Your task to perform on an android device: open the mobile data screen to see how much data has been used Image 0: 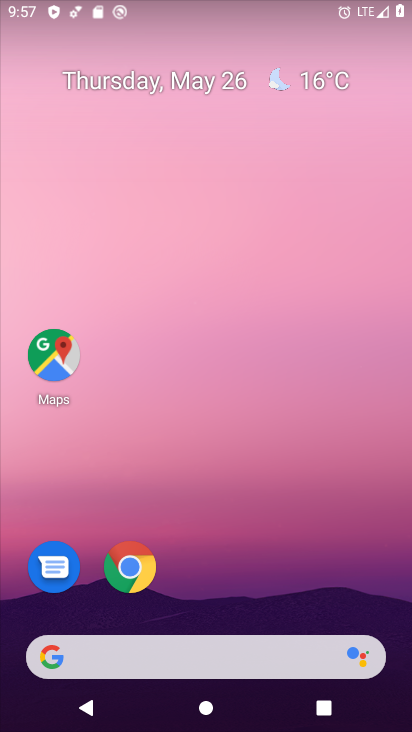
Step 0: drag from (387, 701) to (343, 221)
Your task to perform on an android device: open the mobile data screen to see how much data has been used Image 1: 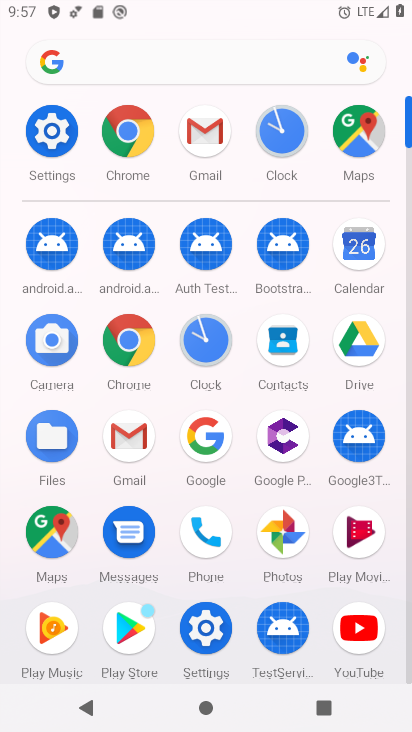
Step 1: click (45, 134)
Your task to perform on an android device: open the mobile data screen to see how much data has been used Image 2: 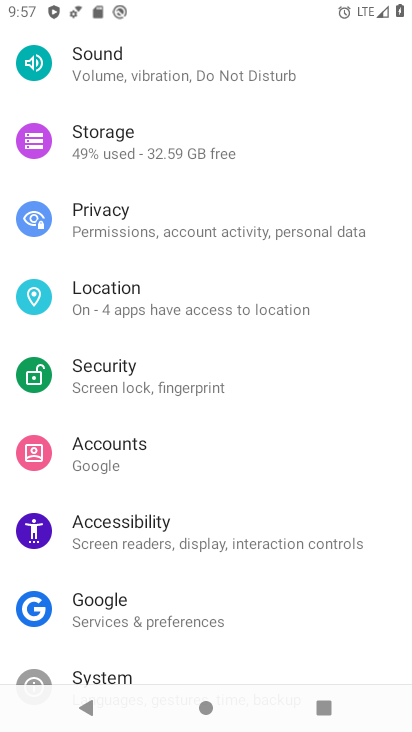
Step 2: drag from (346, 101) to (340, 612)
Your task to perform on an android device: open the mobile data screen to see how much data has been used Image 3: 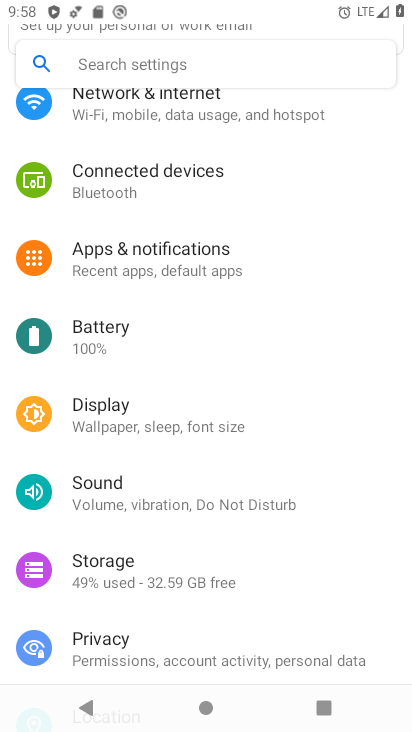
Step 3: click (149, 112)
Your task to perform on an android device: open the mobile data screen to see how much data has been used Image 4: 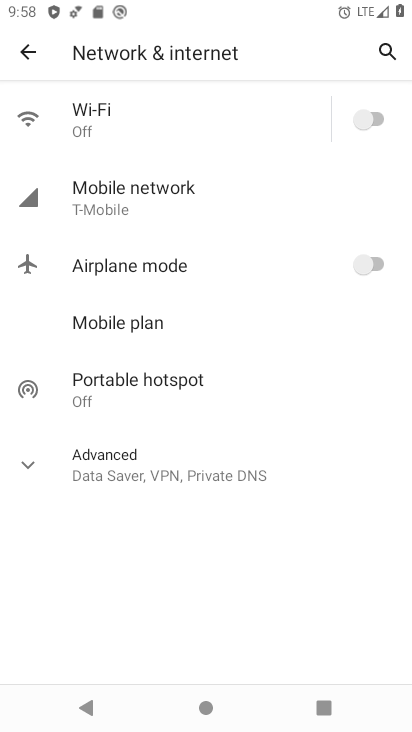
Step 4: click (122, 185)
Your task to perform on an android device: open the mobile data screen to see how much data has been used Image 5: 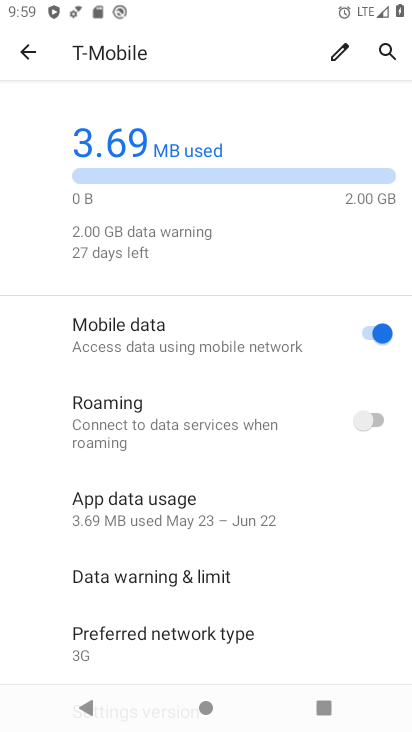
Step 5: task complete